Your task to perform on an android device: turn notification dots on Image 0: 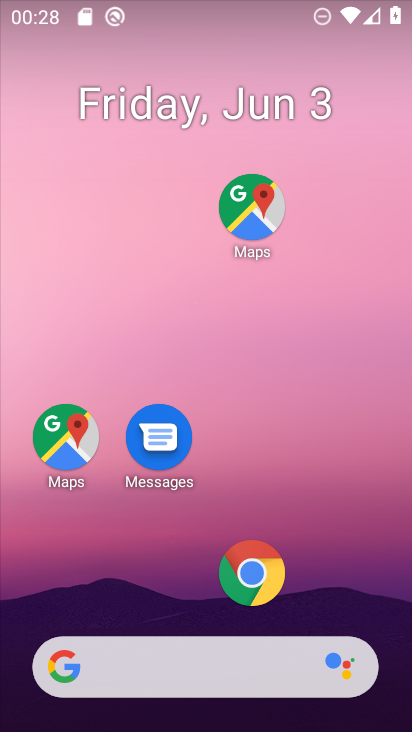
Step 0: drag from (330, 572) to (319, 100)
Your task to perform on an android device: turn notification dots on Image 1: 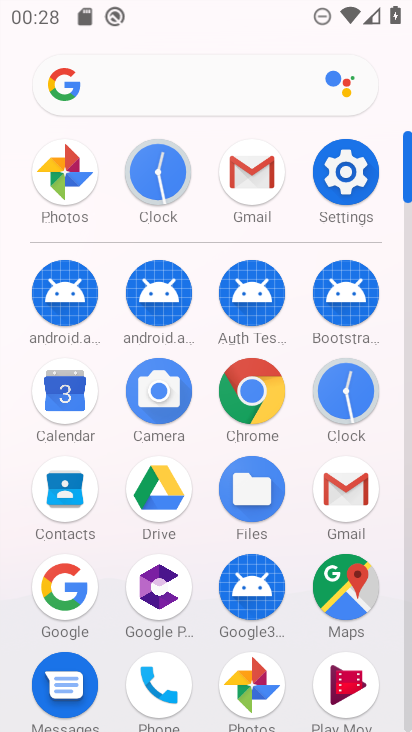
Step 1: click (356, 178)
Your task to perform on an android device: turn notification dots on Image 2: 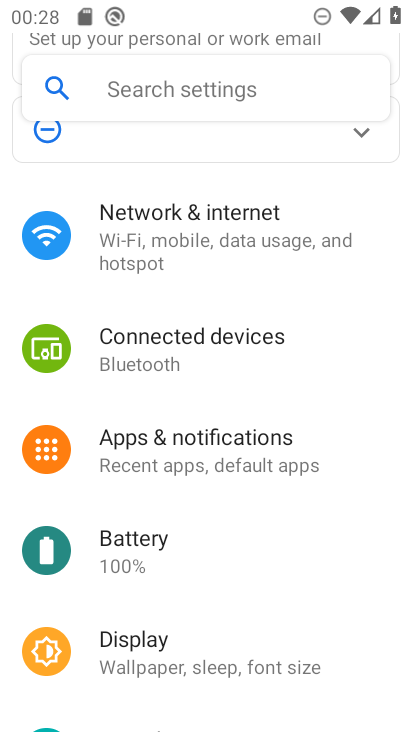
Step 2: click (234, 453)
Your task to perform on an android device: turn notification dots on Image 3: 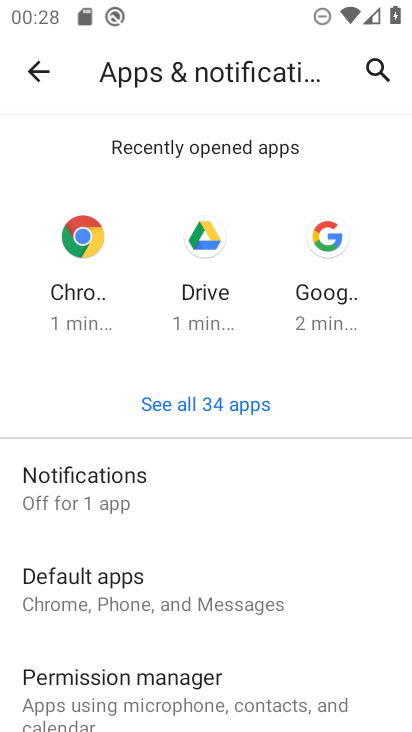
Step 3: click (139, 487)
Your task to perform on an android device: turn notification dots on Image 4: 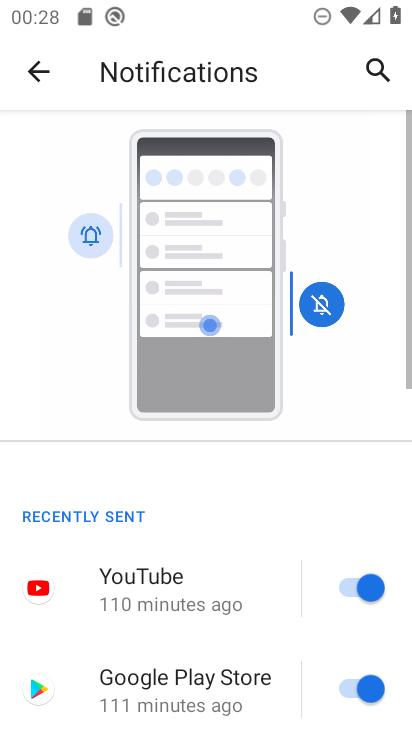
Step 4: drag from (288, 622) to (232, 187)
Your task to perform on an android device: turn notification dots on Image 5: 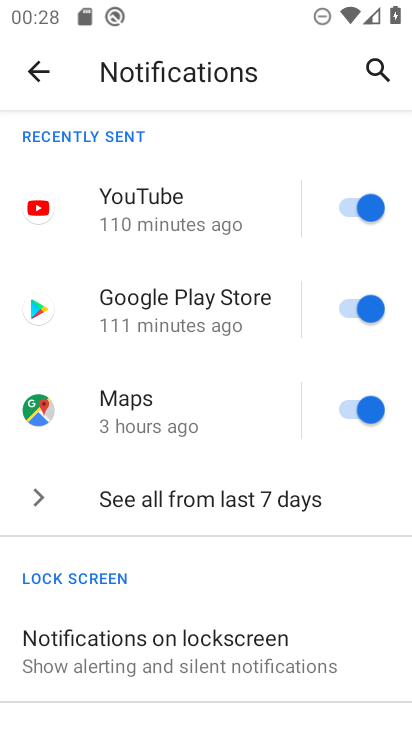
Step 5: drag from (248, 595) to (301, 116)
Your task to perform on an android device: turn notification dots on Image 6: 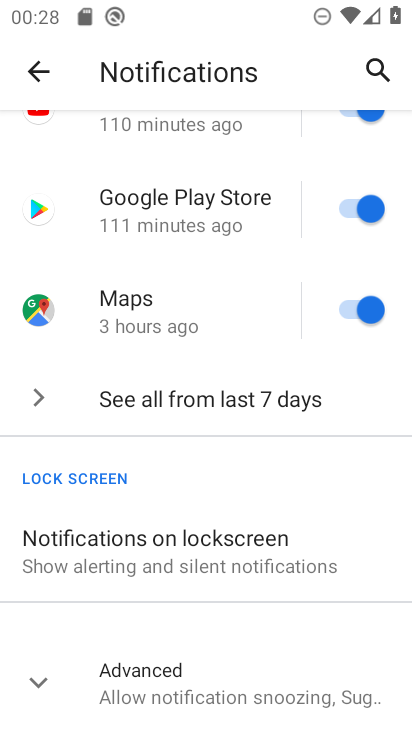
Step 6: click (235, 697)
Your task to perform on an android device: turn notification dots on Image 7: 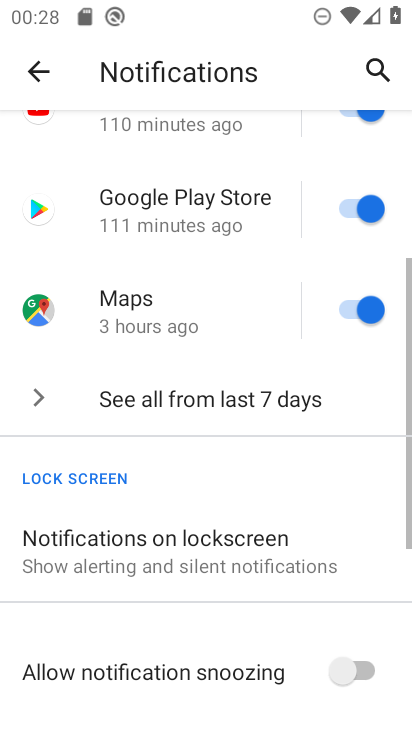
Step 7: drag from (247, 641) to (238, 225)
Your task to perform on an android device: turn notification dots on Image 8: 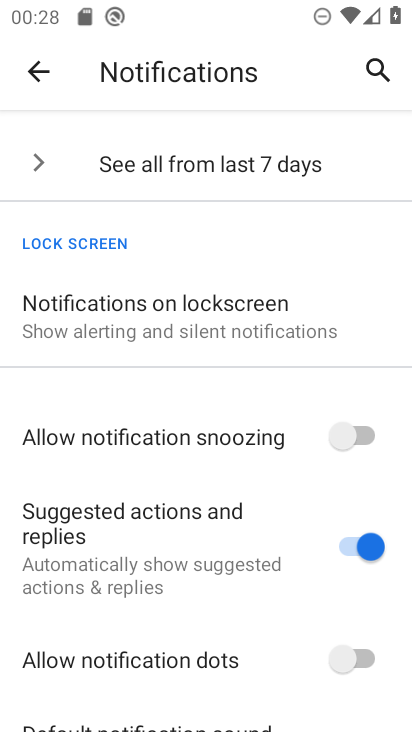
Step 8: click (371, 655)
Your task to perform on an android device: turn notification dots on Image 9: 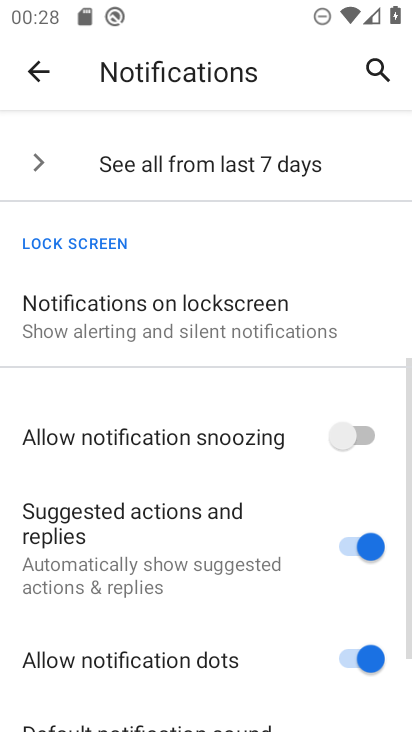
Step 9: task complete